Your task to perform on an android device: Go to Google maps Image 0: 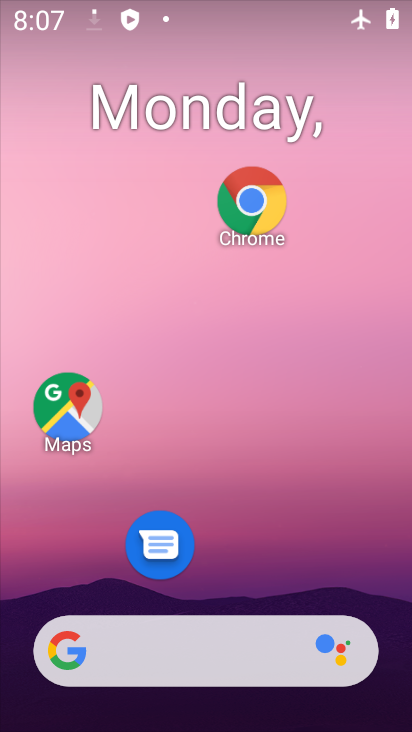
Step 0: click (63, 413)
Your task to perform on an android device: Go to Google maps Image 1: 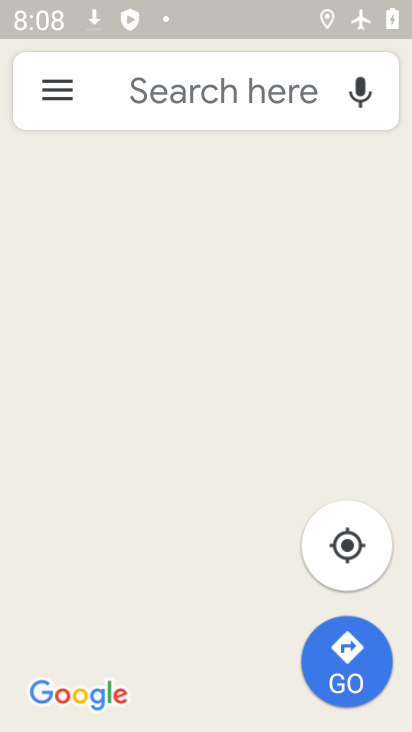
Step 1: task complete